Your task to perform on an android device: turn on location history Image 0: 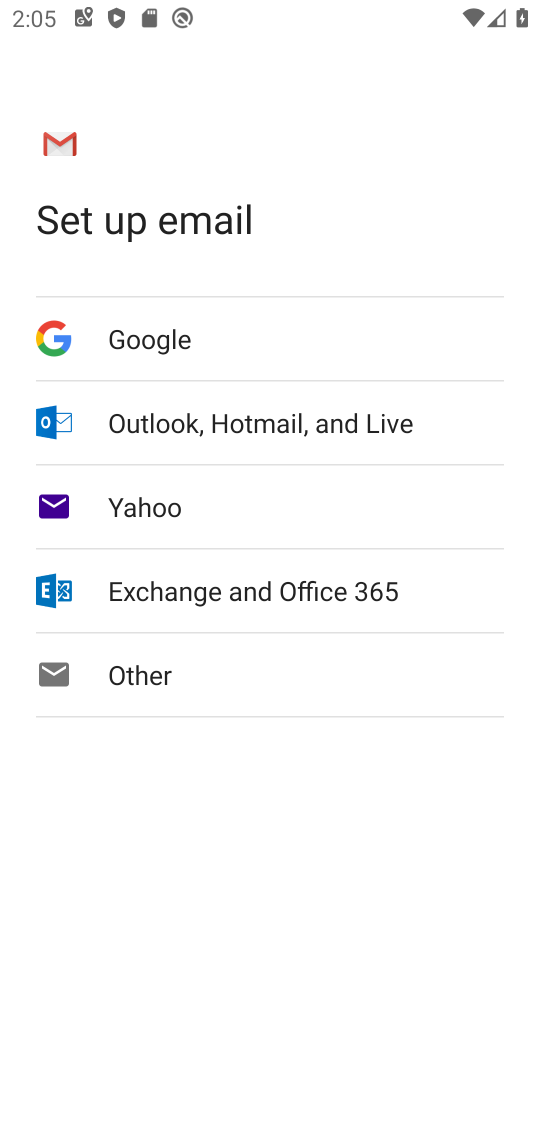
Step 0: press home button
Your task to perform on an android device: turn on location history Image 1: 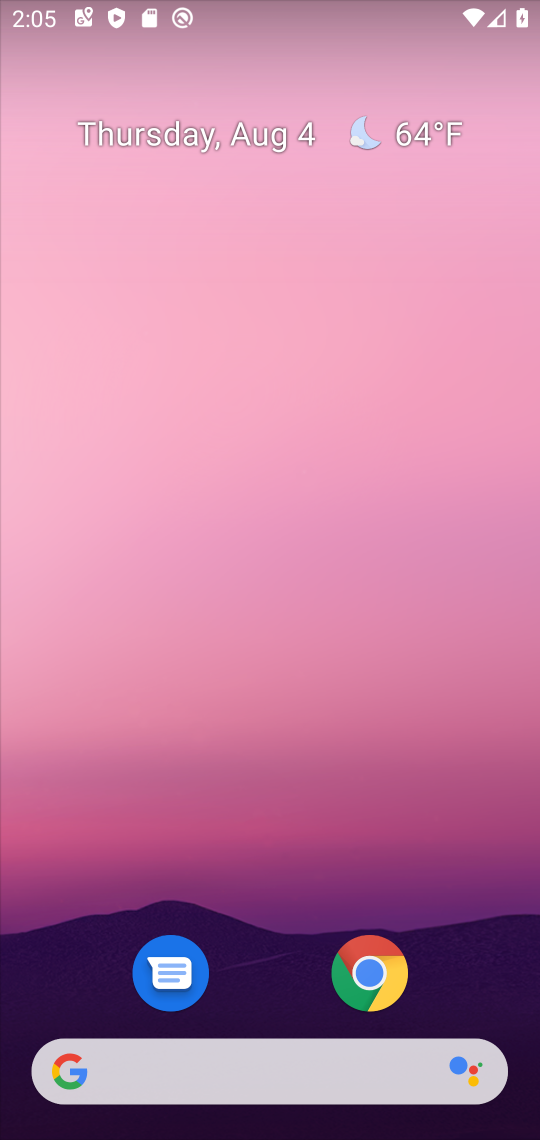
Step 1: drag from (230, 1014) to (360, 26)
Your task to perform on an android device: turn on location history Image 2: 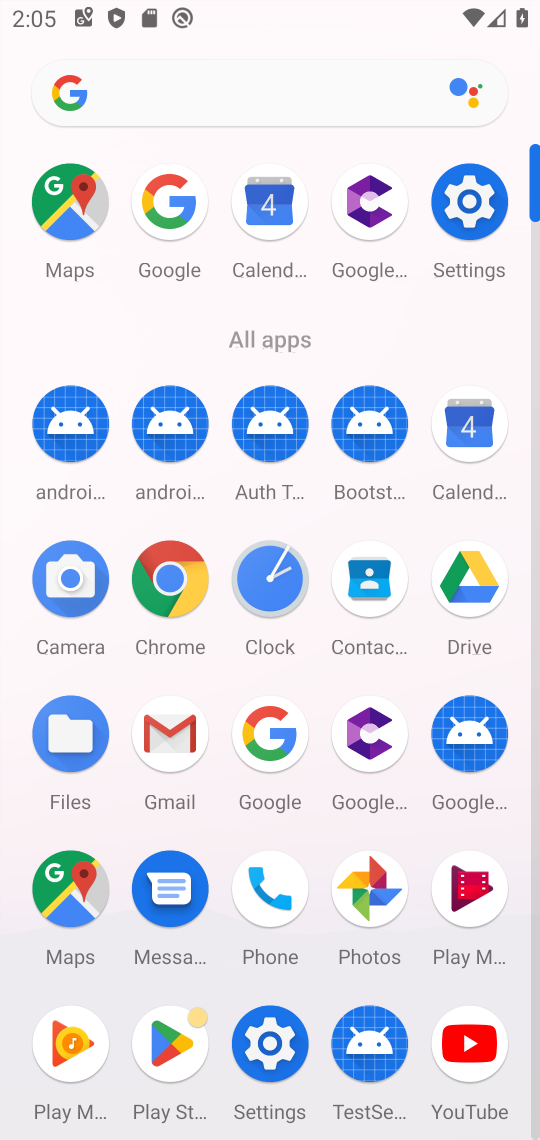
Step 2: click (443, 195)
Your task to perform on an android device: turn on location history Image 3: 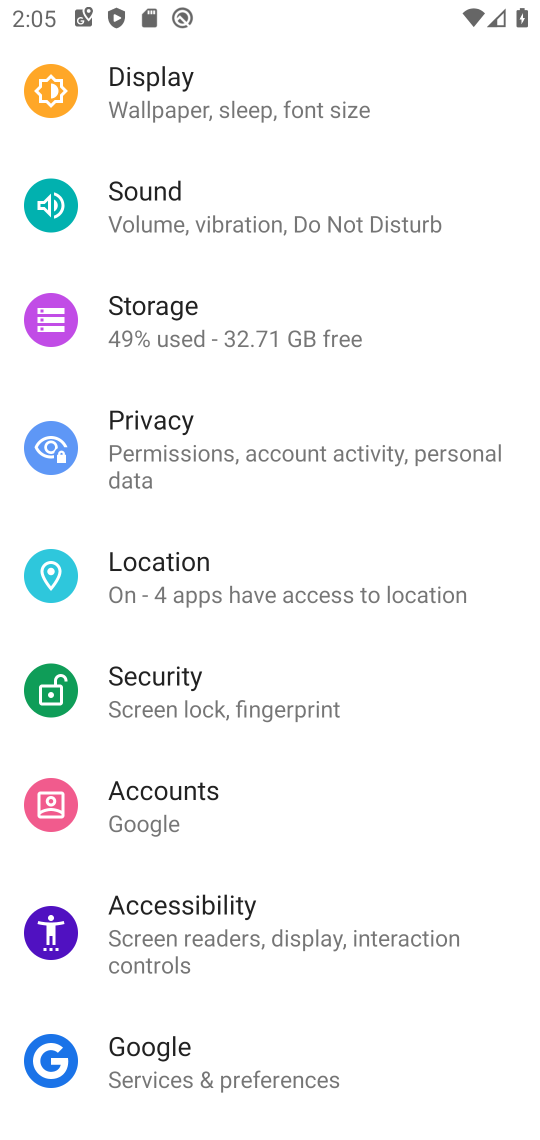
Step 3: click (160, 561)
Your task to perform on an android device: turn on location history Image 4: 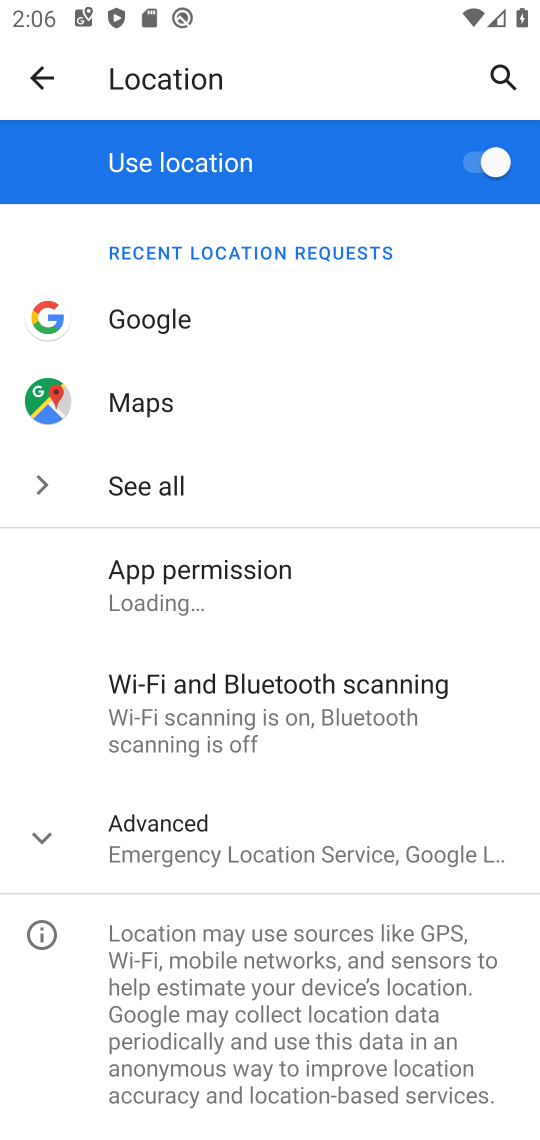
Step 4: click (219, 824)
Your task to perform on an android device: turn on location history Image 5: 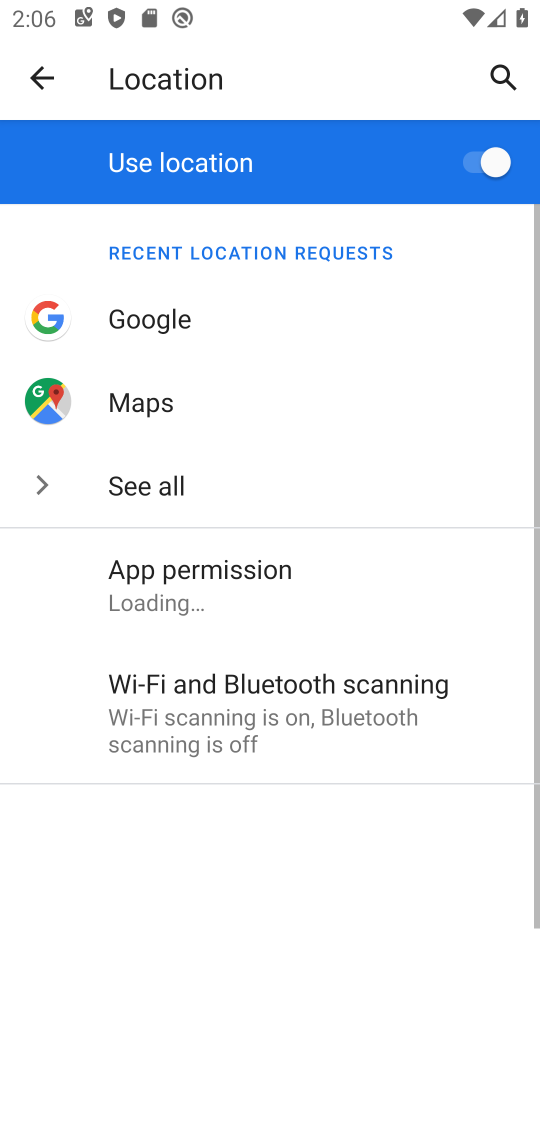
Step 5: drag from (216, 819) to (136, 169)
Your task to perform on an android device: turn on location history Image 6: 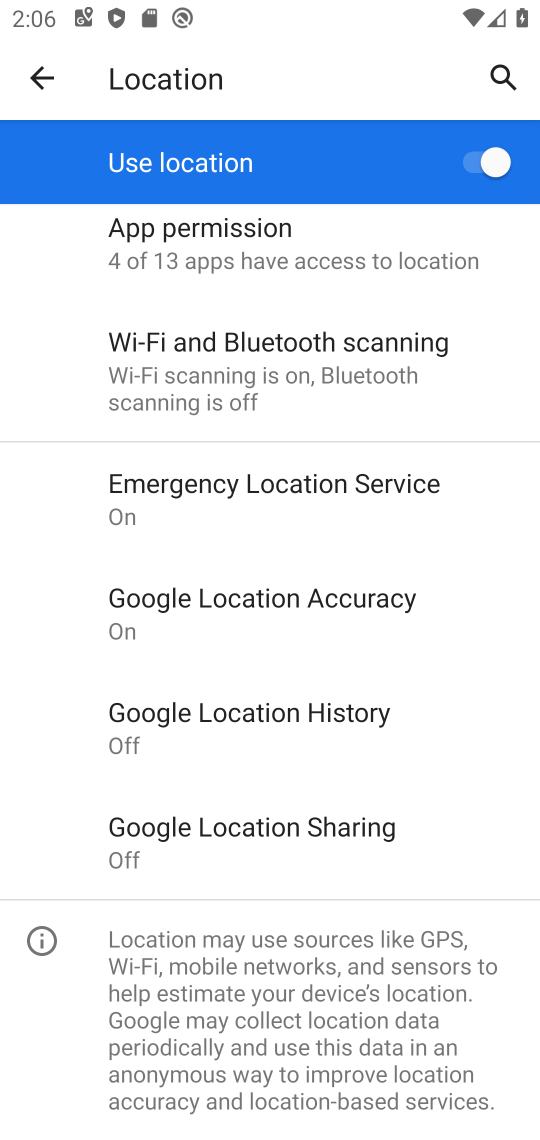
Step 6: click (294, 705)
Your task to perform on an android device: turn on location history Image 7: 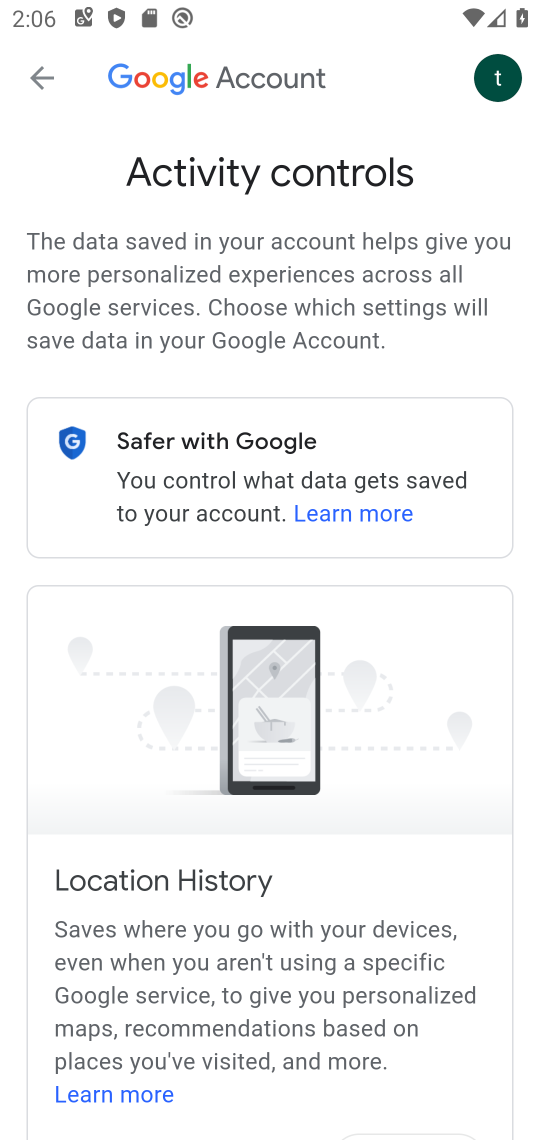
Step 7: task complete